Your task to perform on an android device: Open sound settings Image 0: 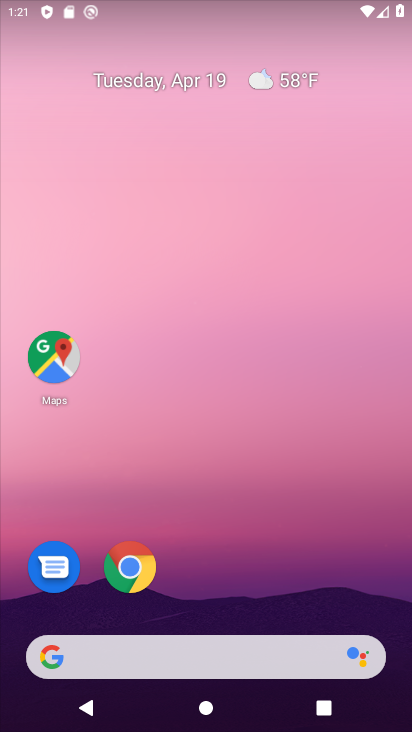
Step 0: drag from (263, 541) to (228, 177)
Your task to perform on an android device: Open sound settings Image 1: 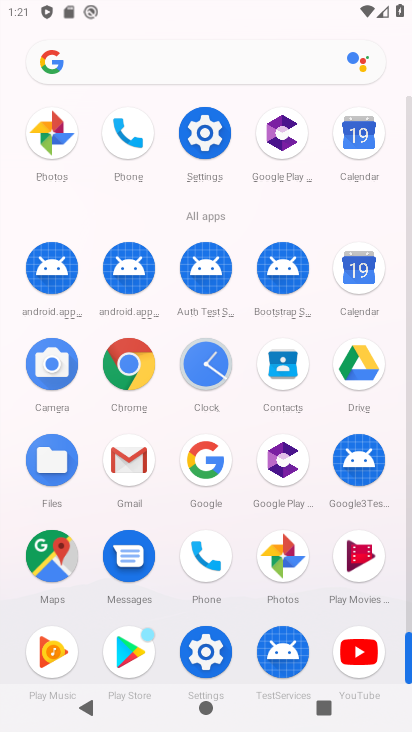
Step 1: click (203, 149)
Your task to perform on an android device: Open sound settings Image 2: 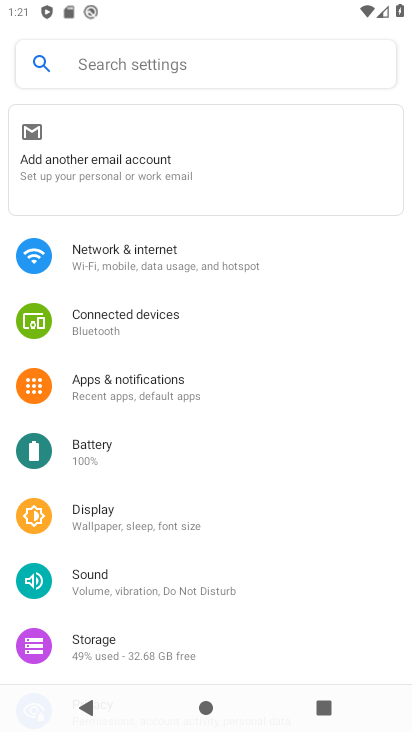
Step 2: click (134, 590)
Your task to perform on an android device: Open sound settings Image 3: 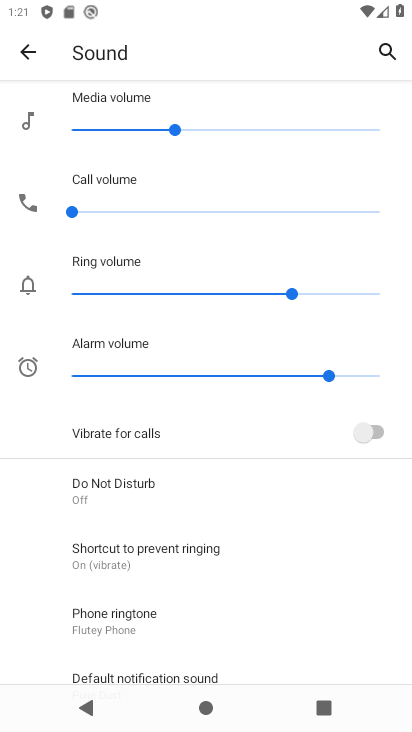
Step 3: task complete